Your task to perform on an android device: turn off wifi Image 0: 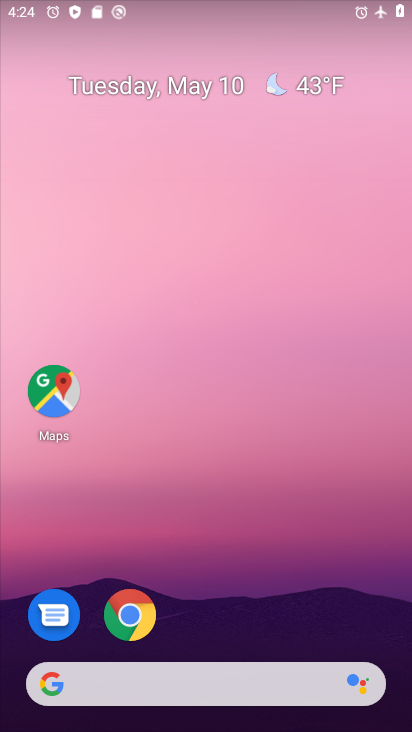
Step 0: drag from (253, 512) to (226, 15)
Your task to perform on an android device: turn off wifi Image 1: 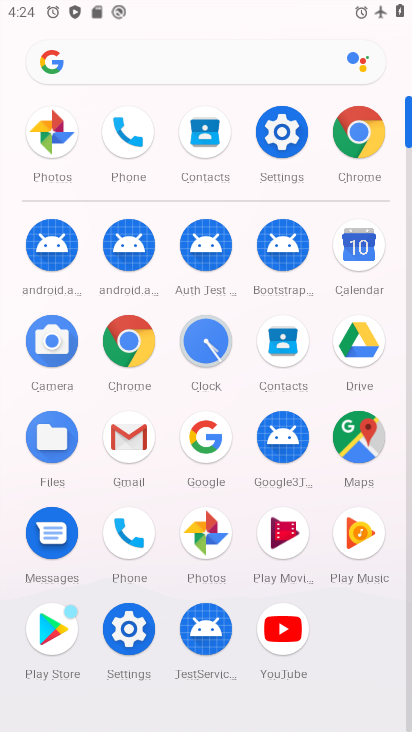
Step 1: click (279, 126)
Your task to perform on an android device: turn off wifi Image 2: 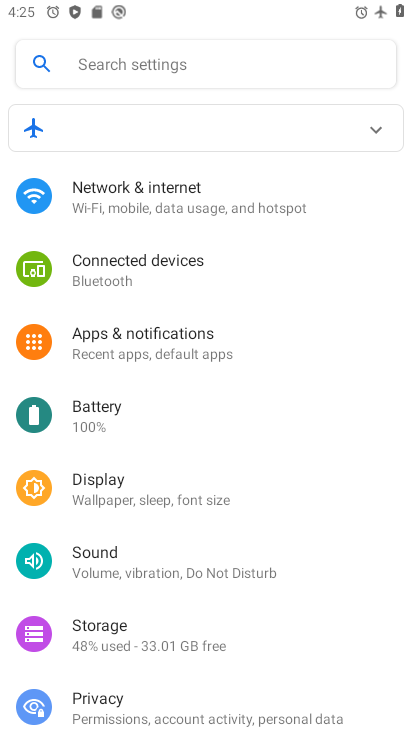
Step 2: click (211, 208)
Your task to perform on an android device: turn off wifi Image 3: 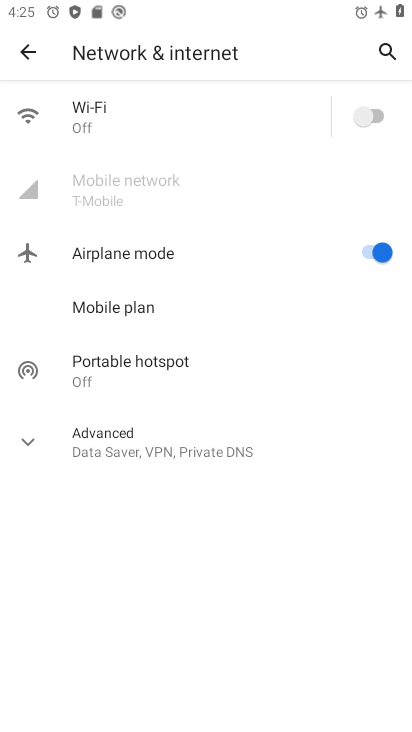
Step 3: click (29, 432)
Your task to perform on an android device: turn off wifi Image 4: 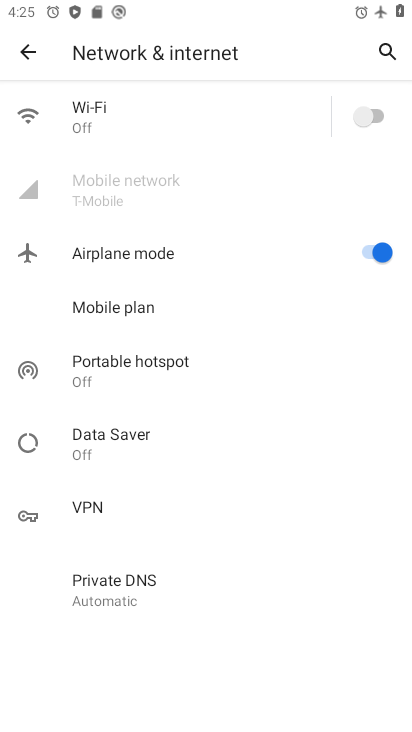
Step 4: task complete